Your task to perform on an android device: turn on wifi Image 0: 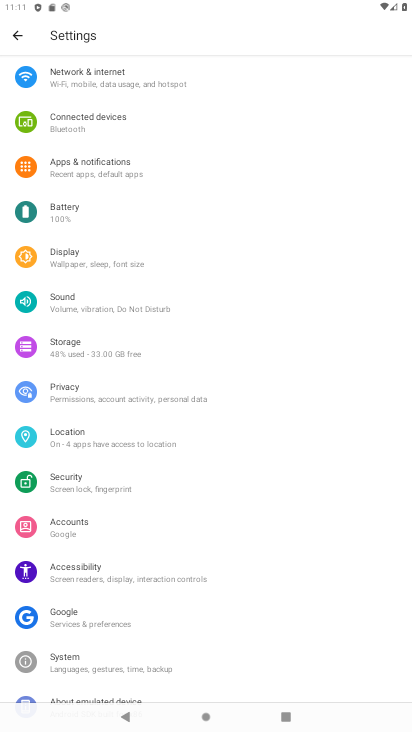
Step 0: click (122, 75)
Your task to perform on an android device: turn on wifi Image 1: 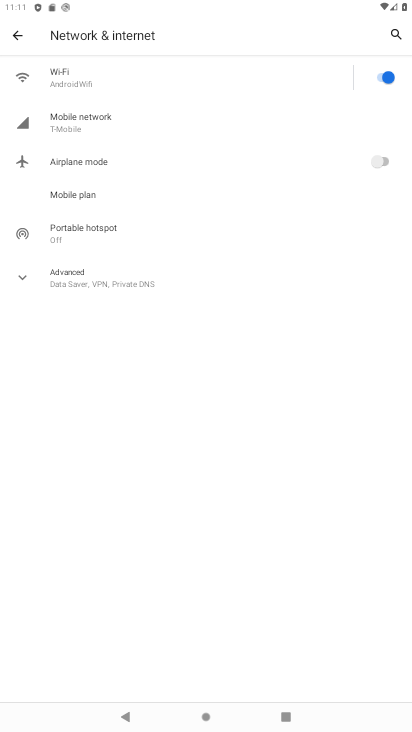
Step 1: task complete